Your task to perform on an android device: turn on wifi Image 0: 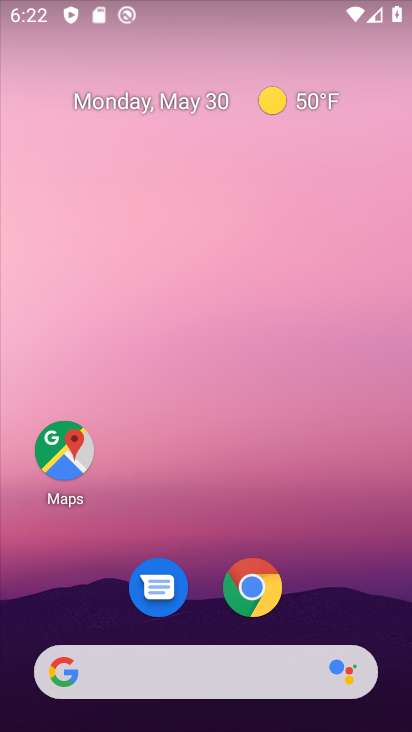
Step 0: drag from (298, 503) to (215, 50)
Your task to perform on an android device: turn on wifi Image 1: 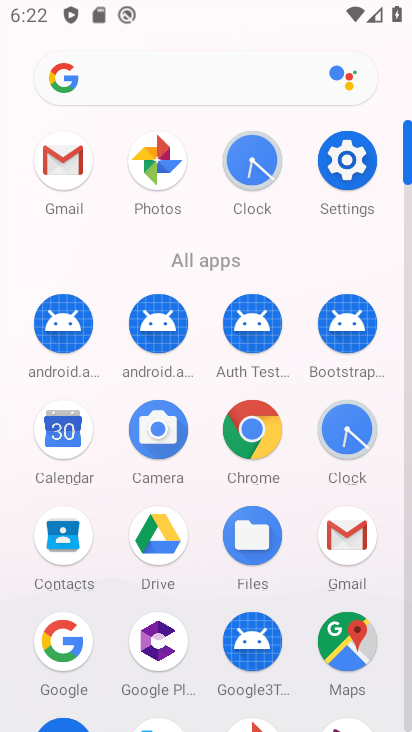
Step 1: drag from (0, 549) to (0, 237)
Your task to perform on an android device: turn on wifi Image 2: 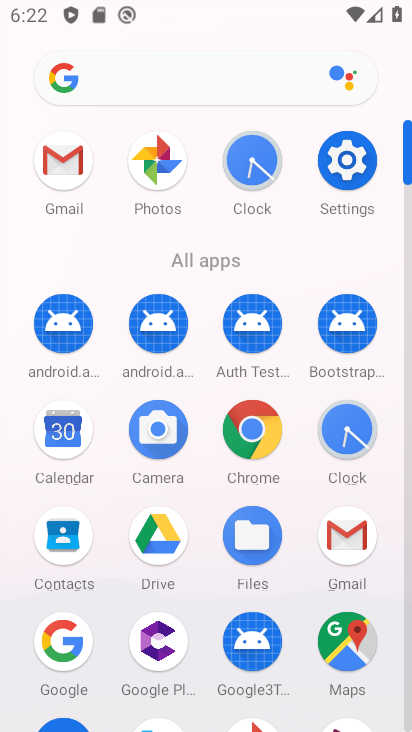
Step 2: click (353, 159)
Your task to perform on an android device: turn on wifi Image 3: 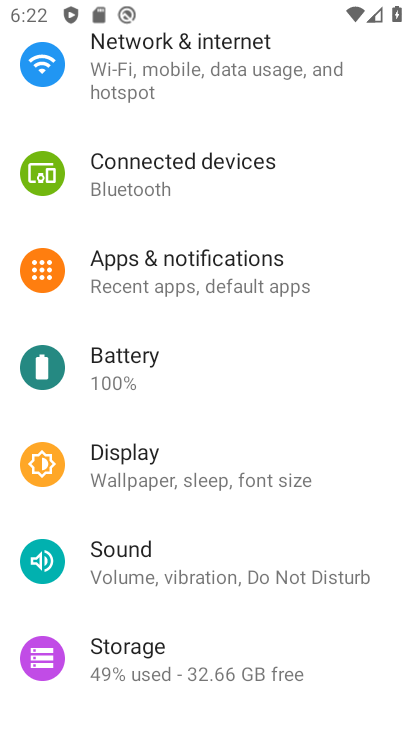
Step 3: drag from (284, 125) to (262, 583)
Your task to perform on an android device: turn on wifi Image 4: 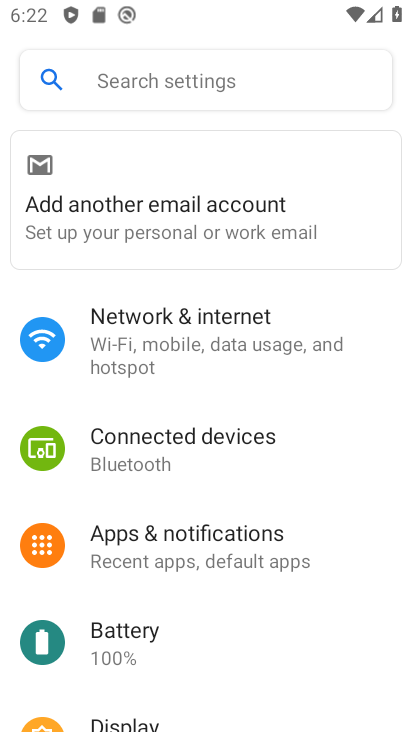
Step 4: click (215, 286)
Your task to perform on an android device: turn on wifi Image 5: 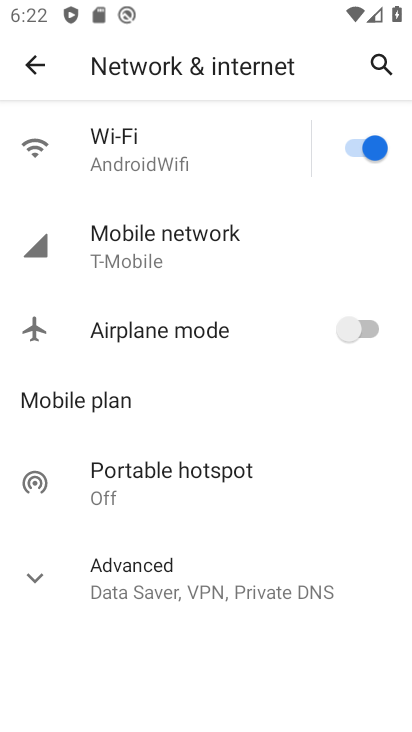
Step 5: task complete